Your task to perform on an android device: Open Google Chrome Image 0: 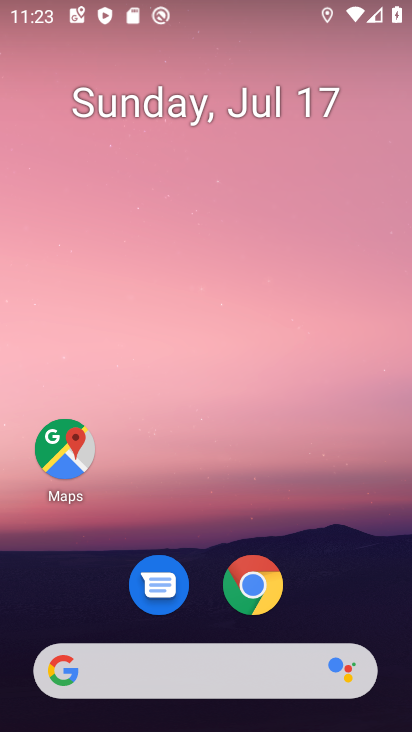
Step 0: click (262, 580)
Your task to perform on an android device: Open Google Chrome Image 1: 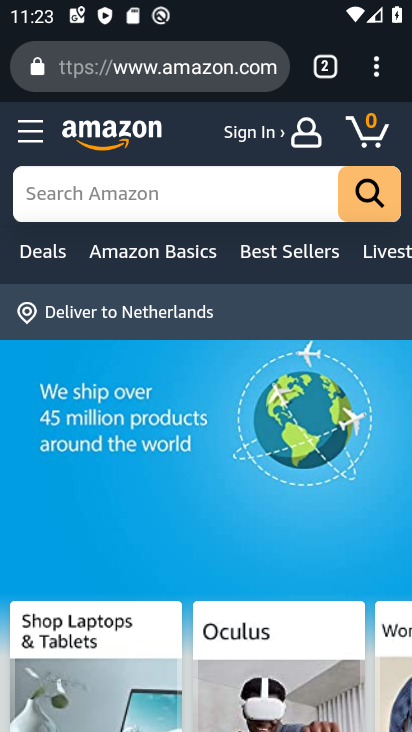
Step 1: click (375, 74)
Your task to perform on an android device: Open Google Chrome Image 2: 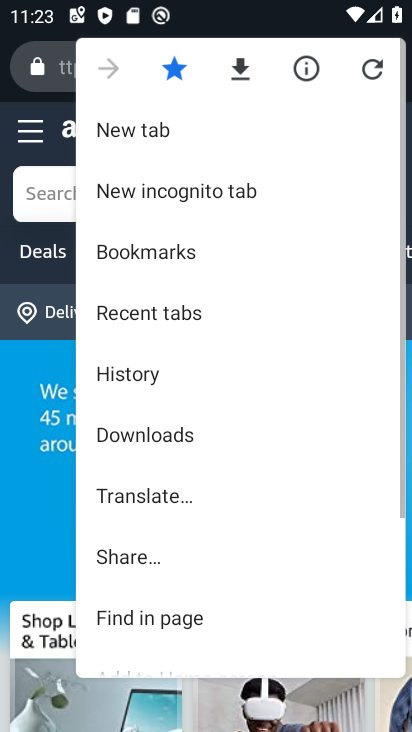
Step 2: click (268, 133)
Your task to perform on an android device: Open Google Chrome Image 3: 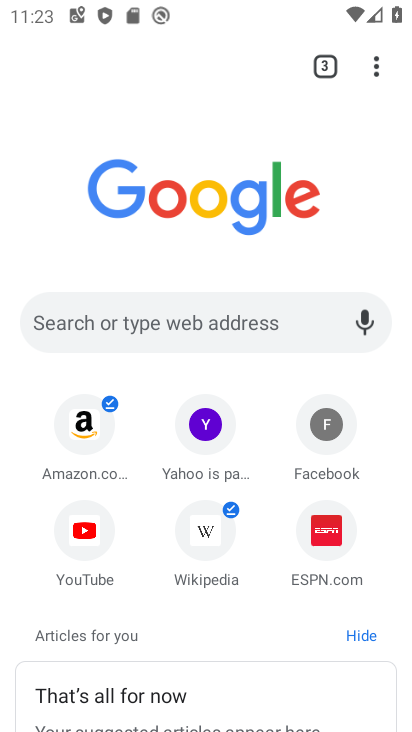
Step 3: task complete